Your task to perform on an android device: Open internet settings Image 0: 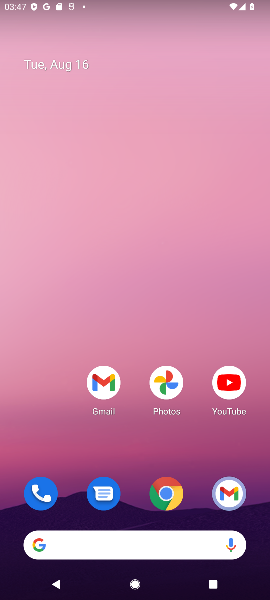
Step 0: press home button
Your task to perform on an android device: Open internet settings Image 1: 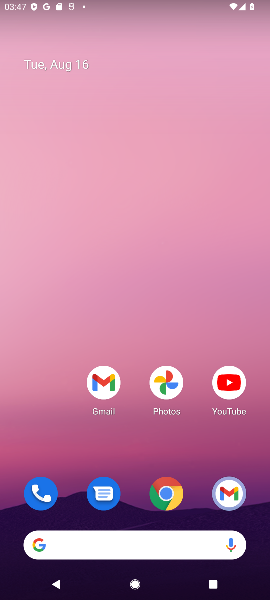
Step 1: drag from (65, 470) to (99, 82)
Your task to perform on an android device: Open internet settings Image 2: 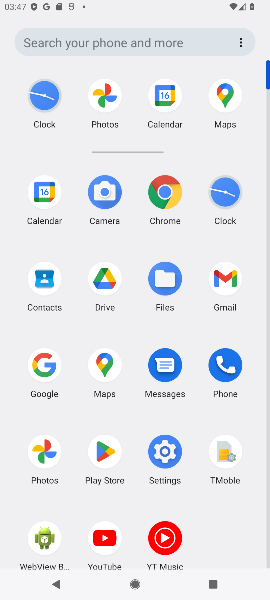
Step 2: click (160, 455)
Your task to perform on an android device: Open internet settings Image 3: 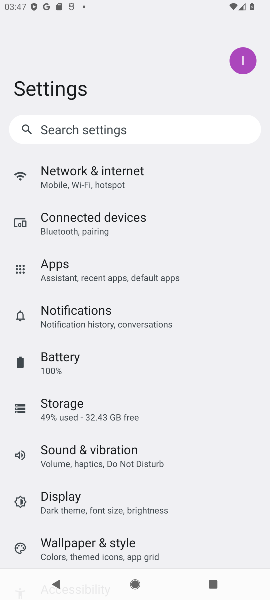
Step 3: drag from (229, 496) to (246, 372)
Your task to perform on an android device: Open internet settings Image 4: 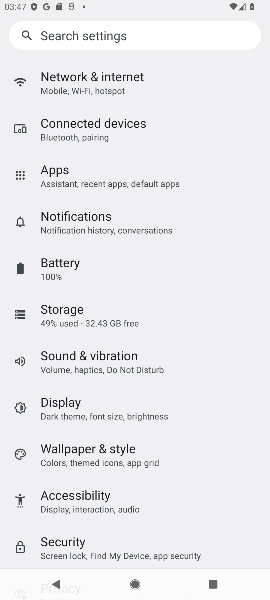
Step 4: drag from (219, 471) to (230, 342)
Your task to perform on an android device: Open internet settings Image 5: 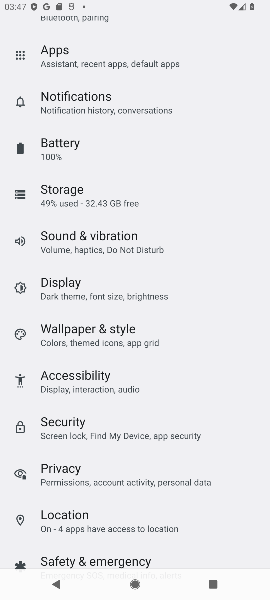
Step 5: drag from (228, 527) to (238, 368)
Your task to perform on an android device: Open internet settings Image 6: 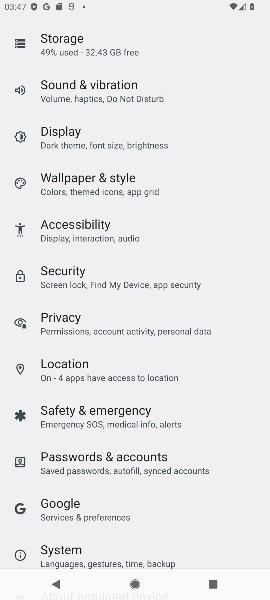
Step 6: drag from (226, 485) to (244, 325)
Your task to perform on an android device: Open internet settings Image 7: 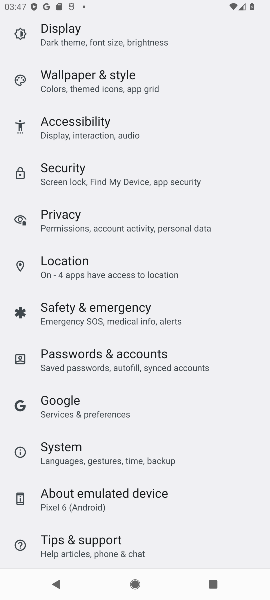
Step 7: drag from (237, 204) to (247, 330)
Your task to perform on an android device: Open internet settings Image 8: 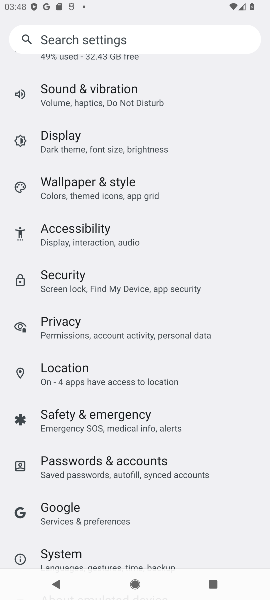
Step 8: drag from (237, 201) to (236, 347)
Your task to perform on an android device: Open internet settings Image 9: 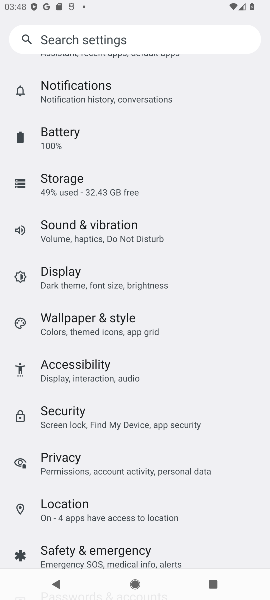
Step 9: drag from (248, 191) to (248, 351)
Your task to perform on an android device: Open internet settings Image 10: 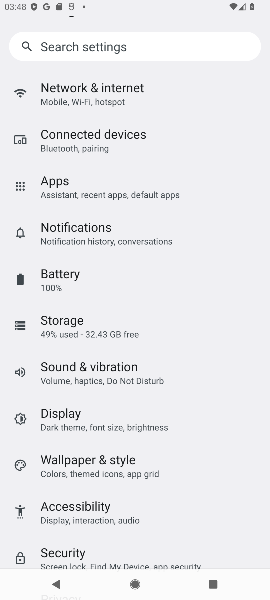
Step 10: click (172, 99)
Your task to perform on an android device: Open internet settings Image 11: 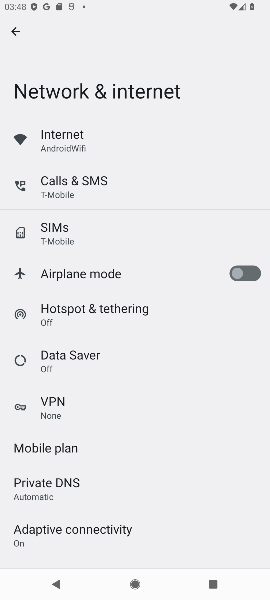
Step 11: task complete